Your task to perform on an android device: What's on my calendar tomorrow? Image 0: 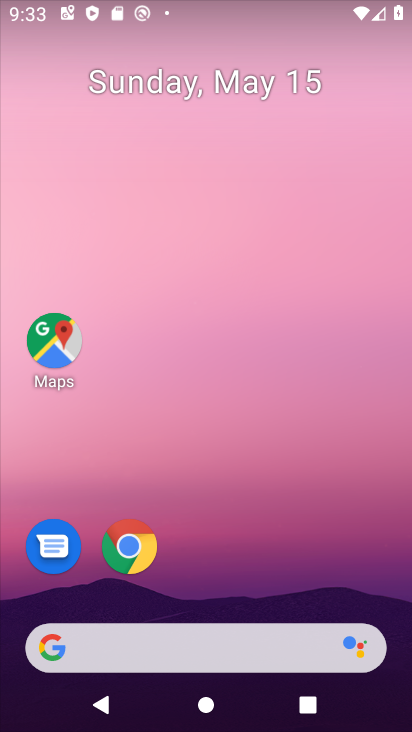
Step 0: click (260, 87)
Your task to perform on an android device: What's on my calendar tomorrow? Image 1: 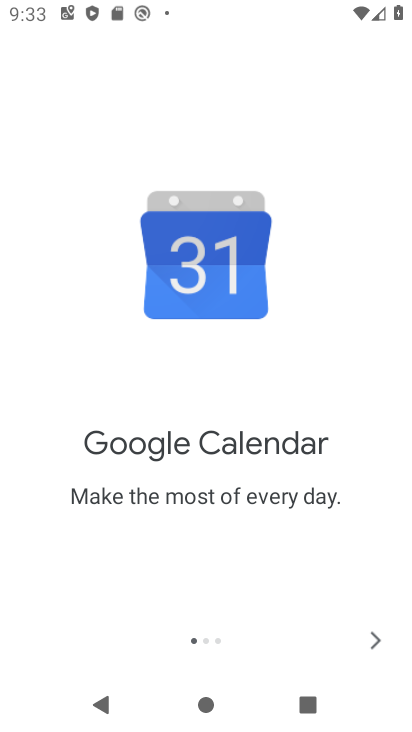
Step 1: click (371, 641)
Your task to perform on an android device: What's on my calendar tomorrow? Image 2: 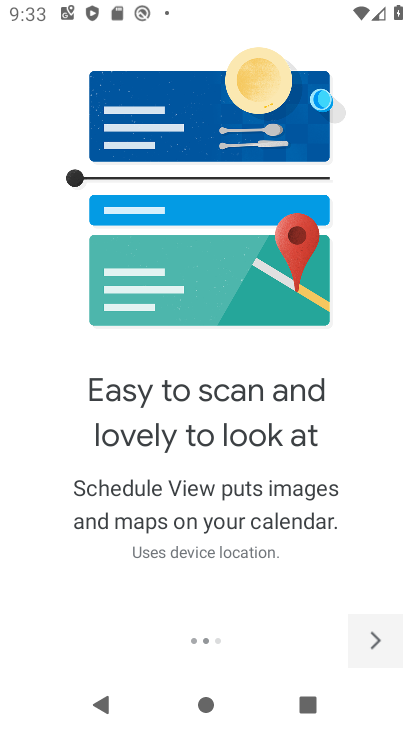
Step 2: click (371, 641)
Your task to perform on an android device: What's on my calendar tomorrow? Image 3: 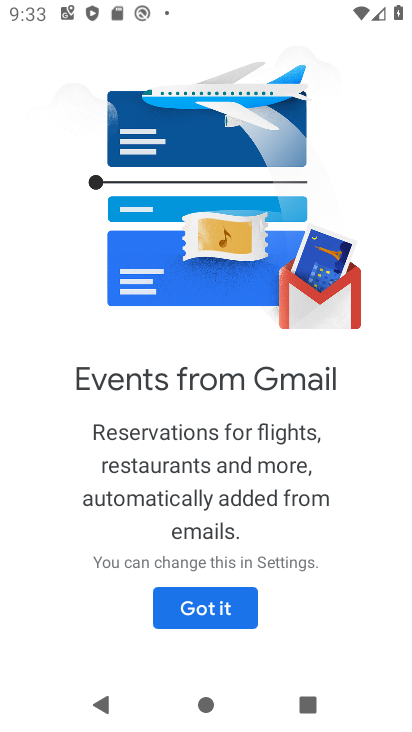
Step 3: click (214, 610)
Your task to perform on an android device: What's on my calendar tomorrow? Image 4: 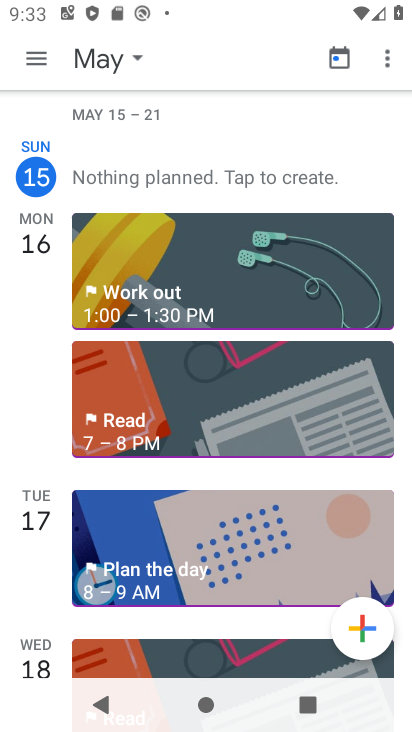
Step 4: click (130, 54)
Your task to perform on an android device: What's on my calendar tomorrow? Image 5: 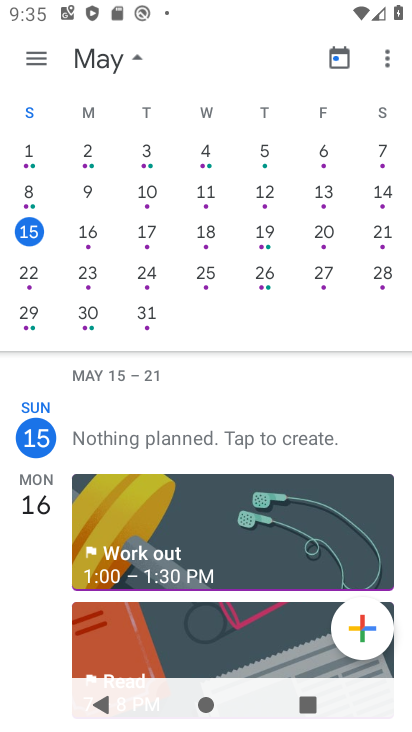
Step 5: click (82, 234)
Your task to perform on an android device: What's on my calendar tomorrow? Image 6: 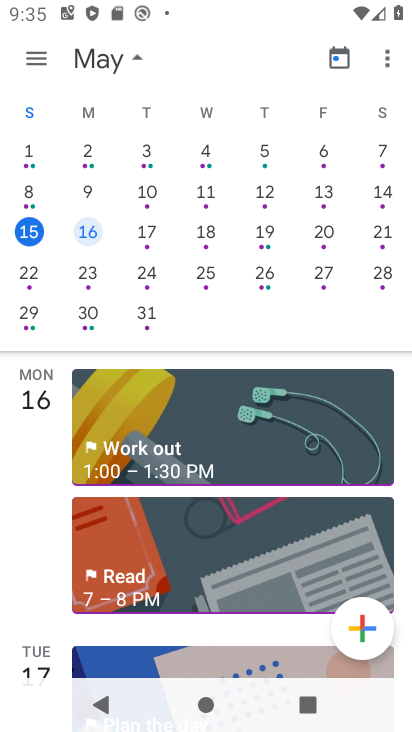
Step 6: task complete